Your task to perform on an android device: Go to Google Image 0: 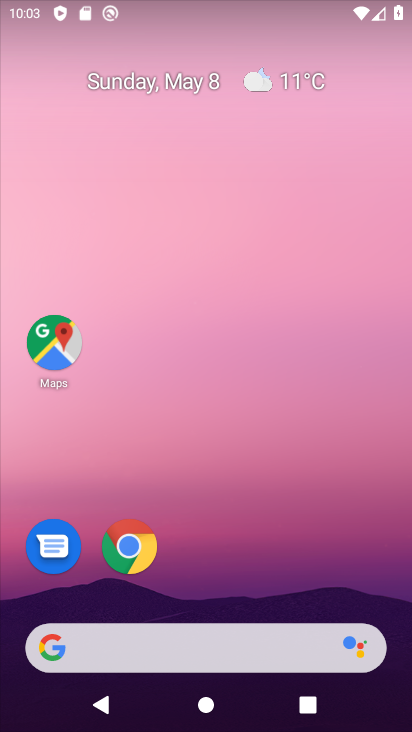
Step 0: drag from (227, 540) to (201, 30)
Your task to perform on an android device: Go to Google Image 1: 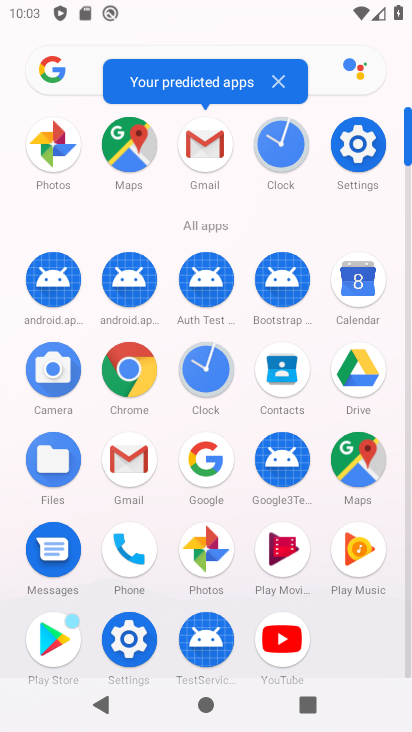
Step 1: click (201, 457)
Your task to perform on an android device: Go to Google Image 2: 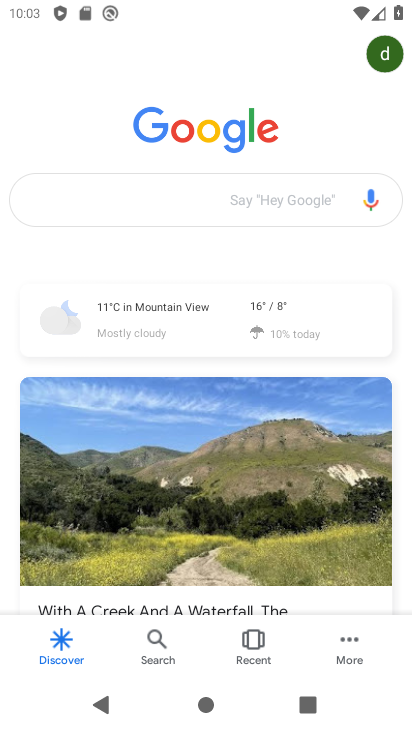
Step 2: task complete